Your task to perform on an android device: empty trash in google photos Image 0: 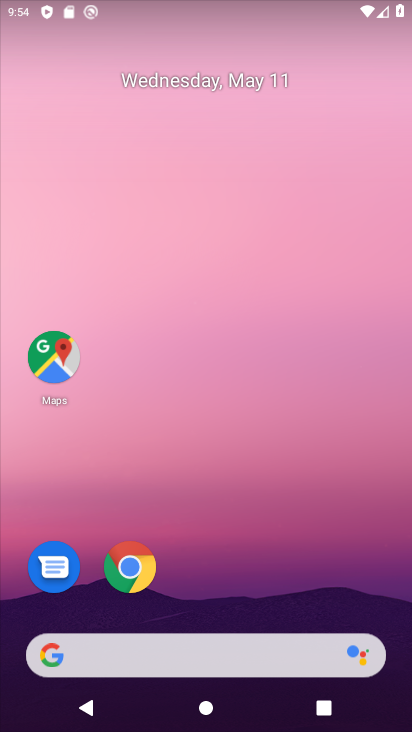
Step 0: drag from (255, 583) to (234, 193)
Your task to perform on an android device: empty trash in google photos Image 1: 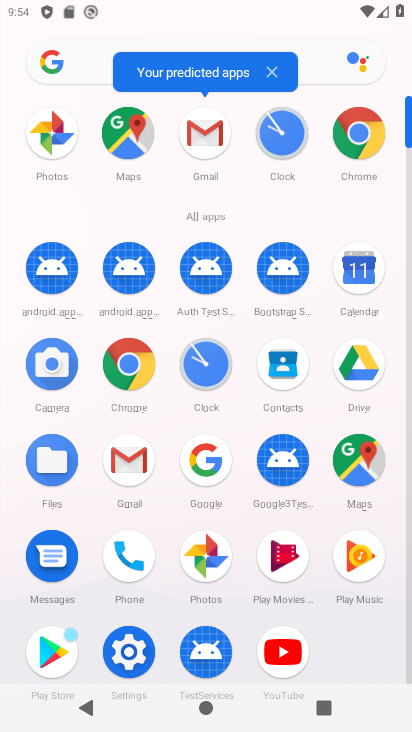
Step 1: click (201, 555)
Your task to perform on an android device: empty trash in google photos Image 2: 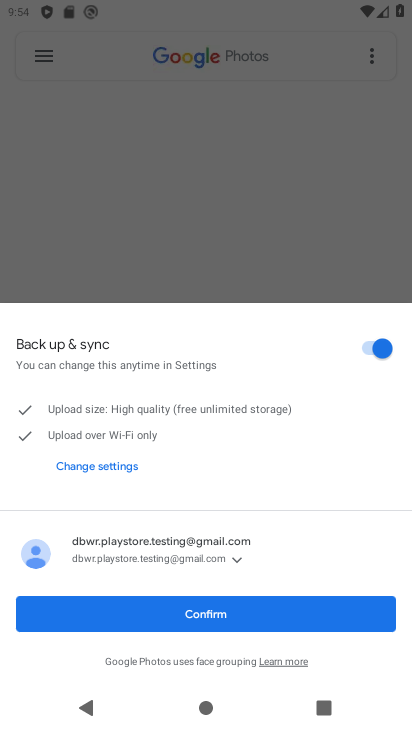
Step 2: click (233, 609)
Your task to perform on an android device: empty trash in google photos Image 3: 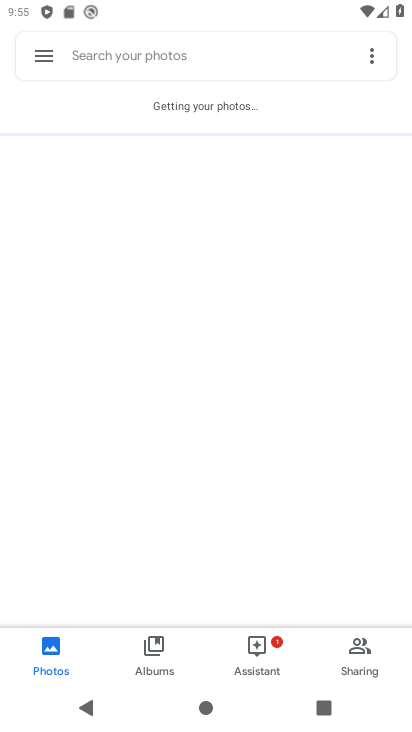
Step 3: click (37, 45)
Your task to perform on an android device: empty trash in google photos Image 4: 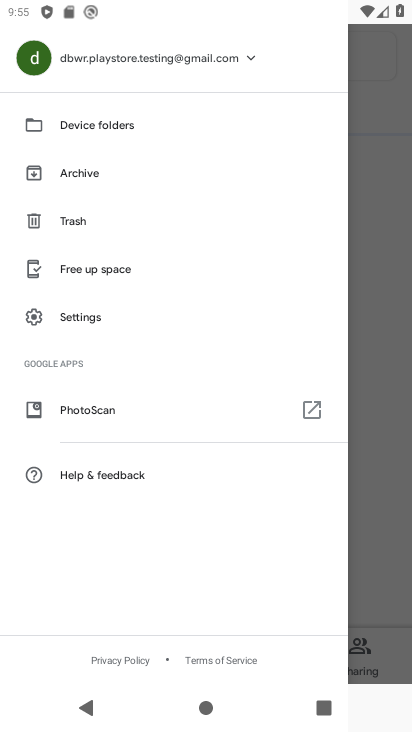
Step 4: click (99, 226)
Your task to perform on an android device: empty trash in google photos Image 5: 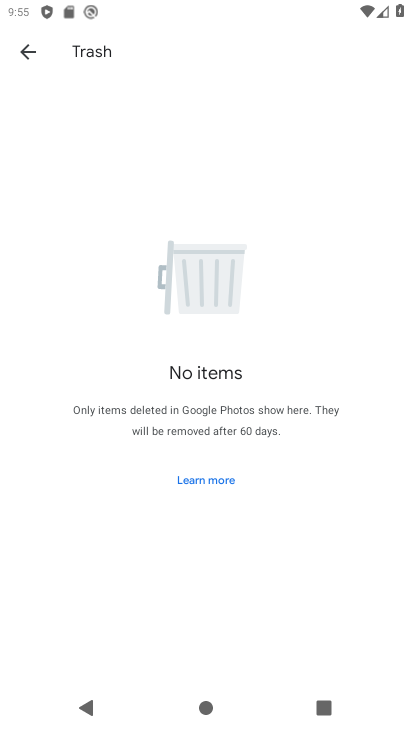
Step 5: task complete